Your task to perform on an android device: Open maps Image 0: 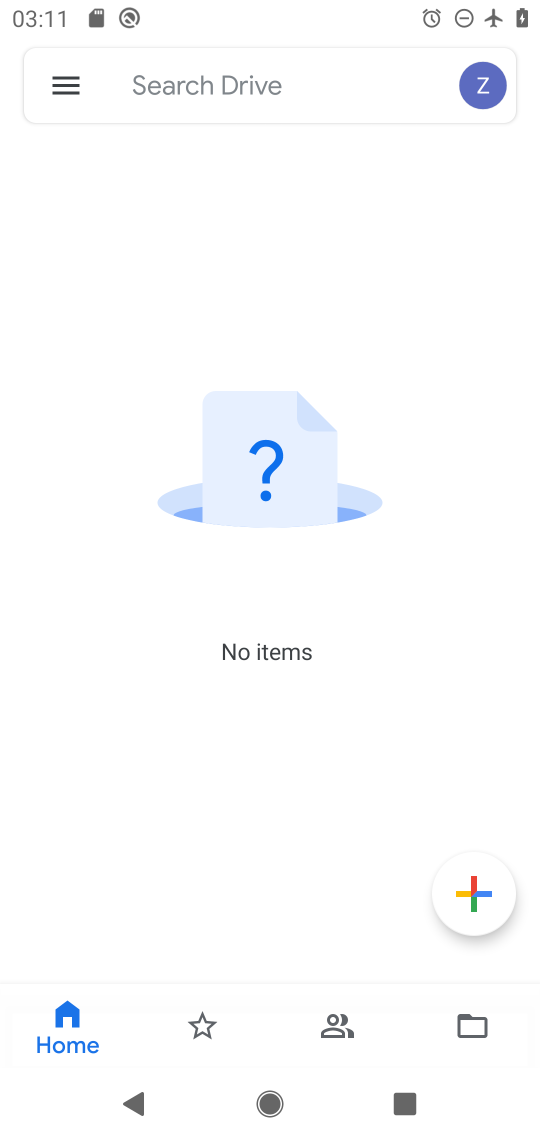
Step 0: press home button
Your task to perform on an android device: Open maps Image 1: 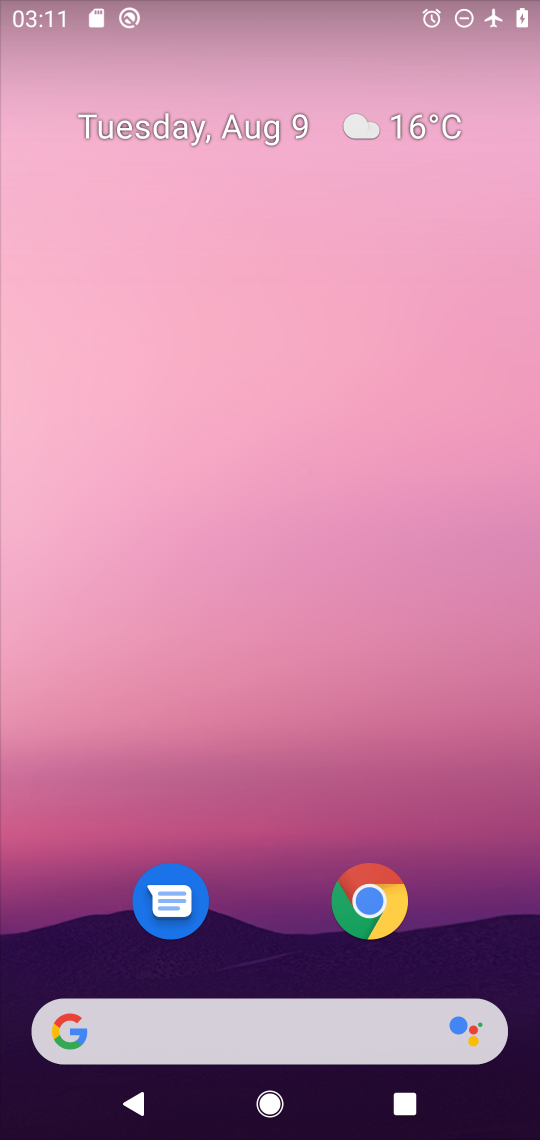
Step 1: drag from (477, 753) to (438, 253)
Your task to perform on an android device: Open maps Image 2: 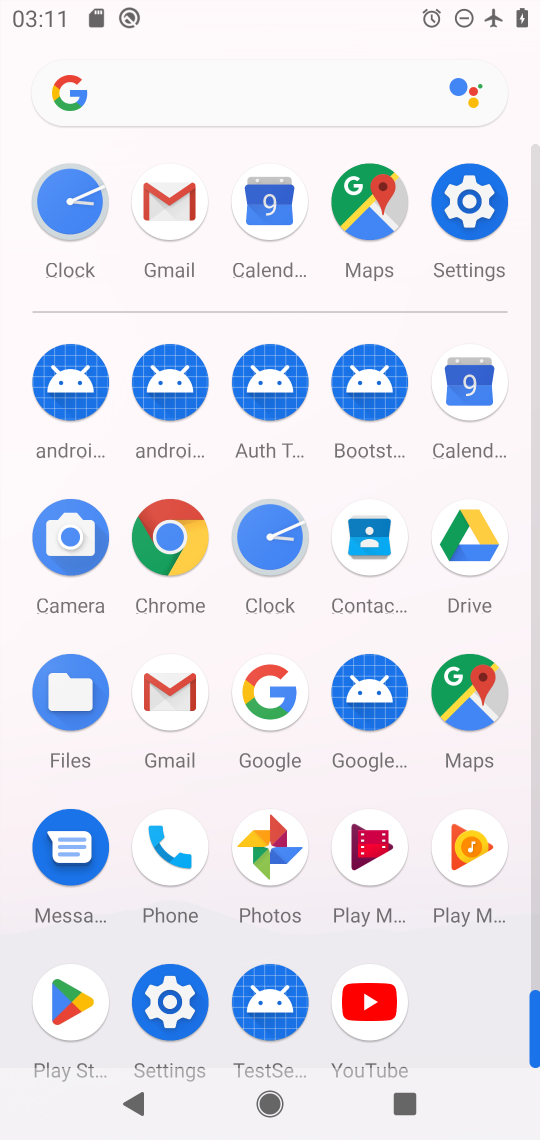
Step 2: click (469, 695)
Your task to perform on an android device: Open maps Image 3: 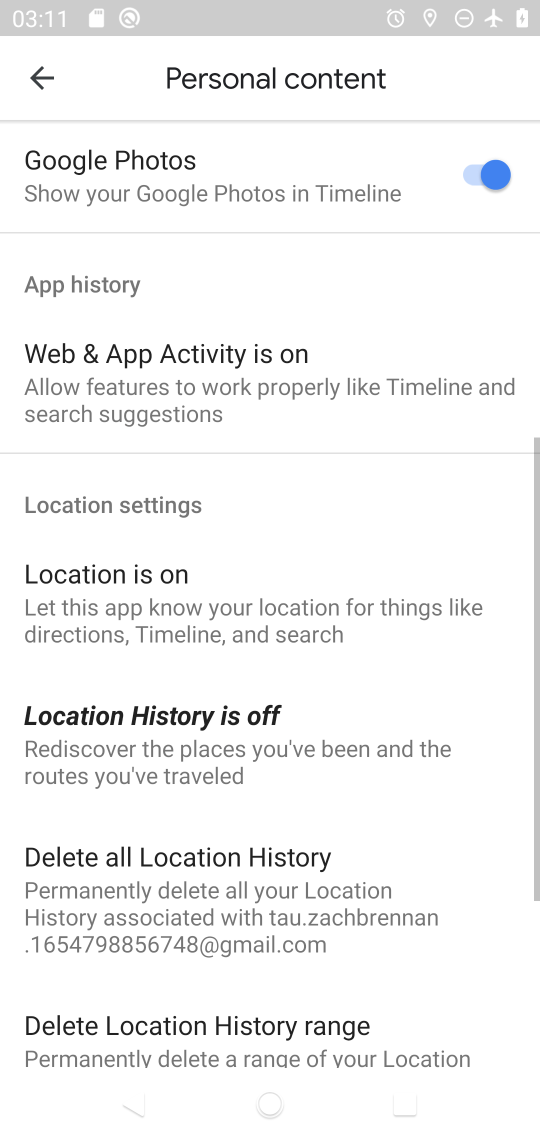
Step 3: task complete